Your task to perform on an android device: Open Chrome and go to settings Image 0: 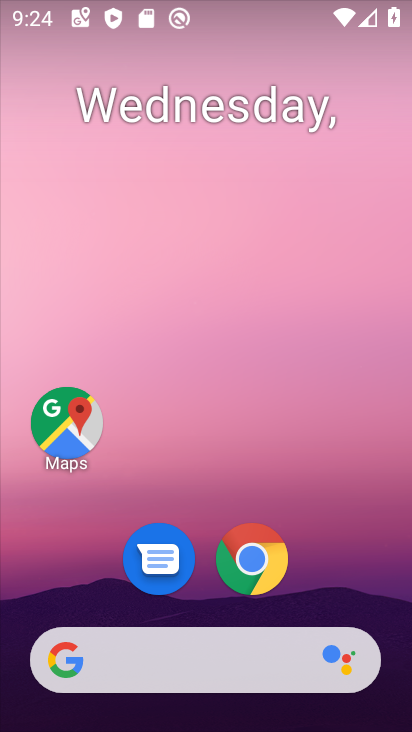
Step 0: click (253, 564)
Your task to perform on an android device: Open Chrome and go to settings Image 1: 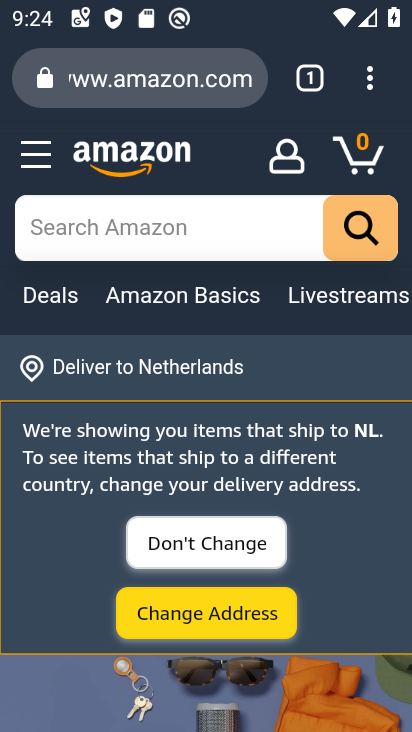
Step 1: click (369, 69)
Your task to perform on an android device: Open Chrome and go to settings Image 2: 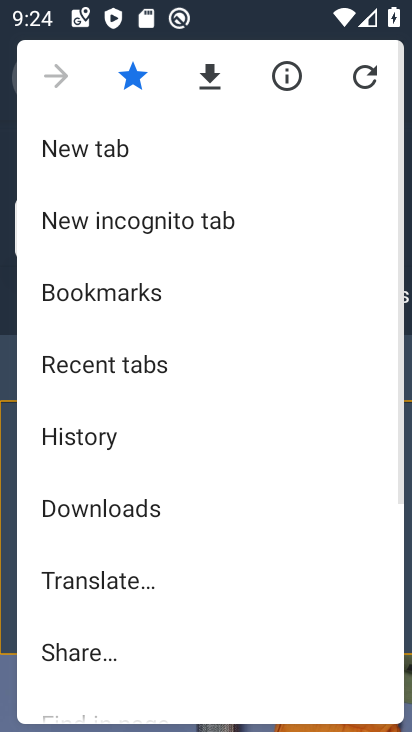
Step 2: drag from (187, 625) to (210, 190)
Your task to perform on an android device: Open Chrome and go to settings Image 3: 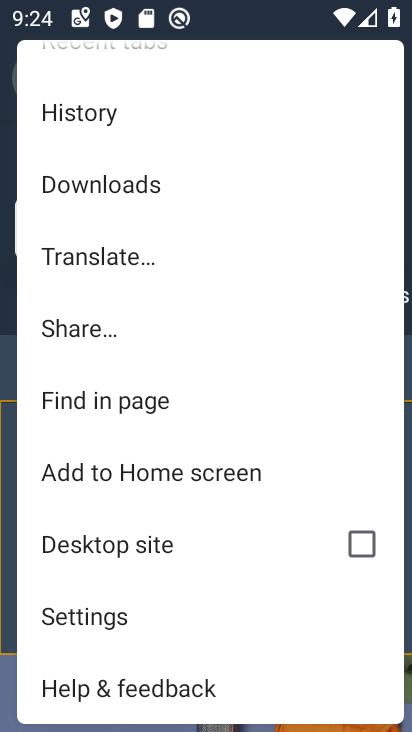
Step 3: click (84, 608)
Your task to perform on an android device: Open Chrome and go to settings Image 4: 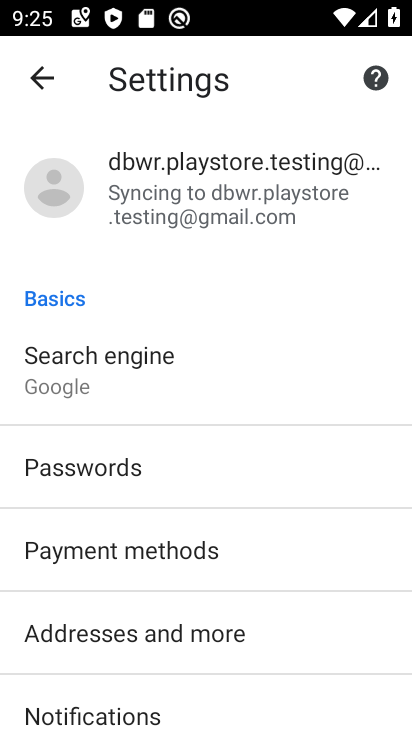
Step 4: task complete